Your task to perform on an android device: Open battery settings Image 0: 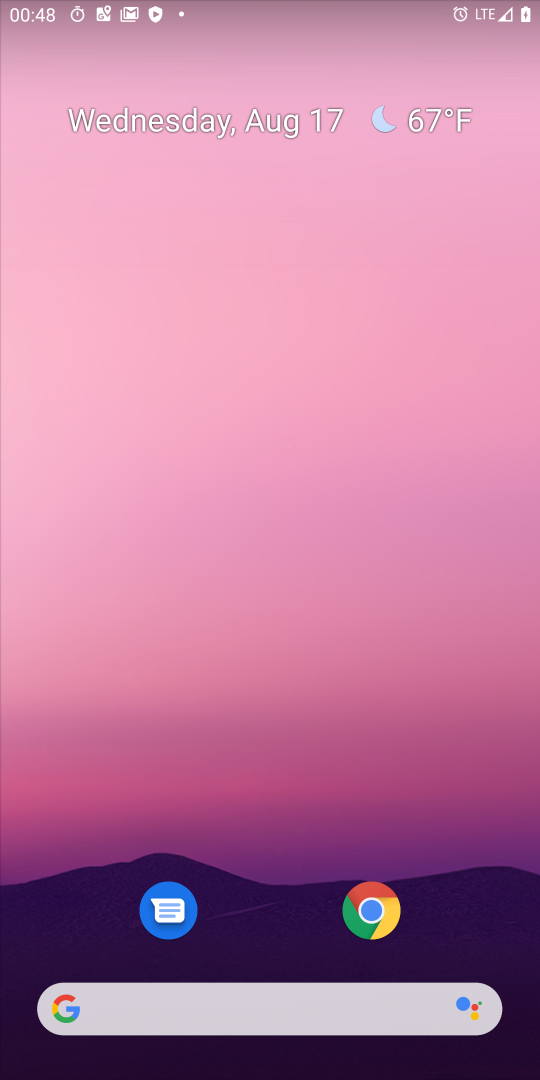
Step 0: drag from (270, 934) to (276, 92)
Your task to perform on an android device: Open battery settings Image 1: 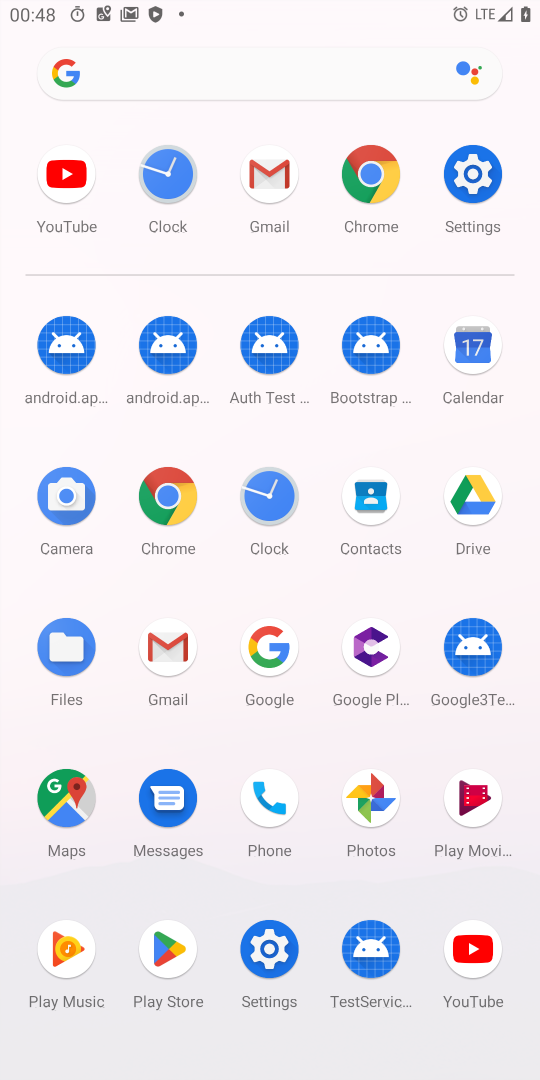
Step 1: click (253, 948)
Your task to perform on an android device: Open battery settings Image 2: 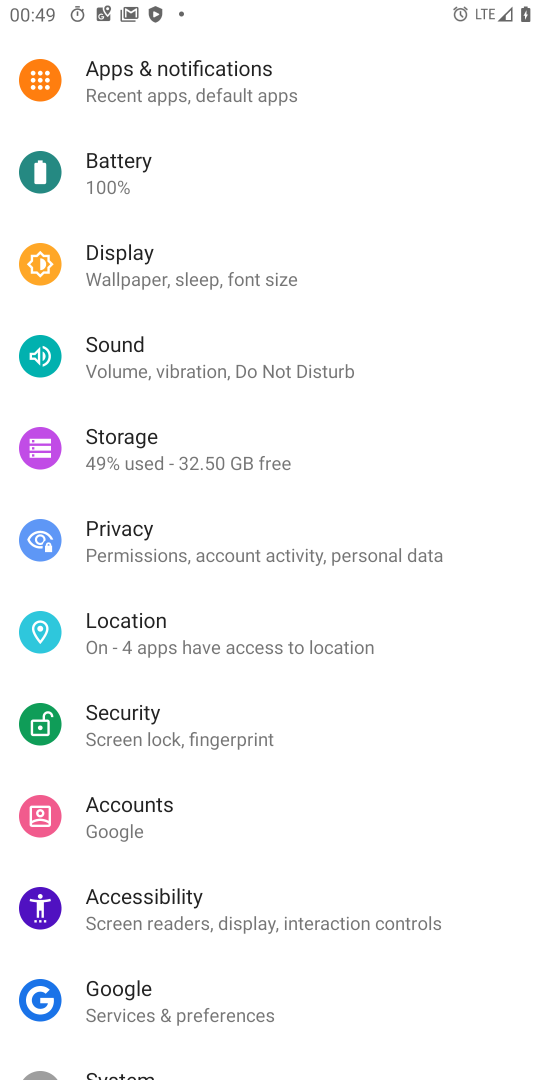
Step 2: click (169, 185)
Your task to perform on an android device: Open battery settings Image 3: 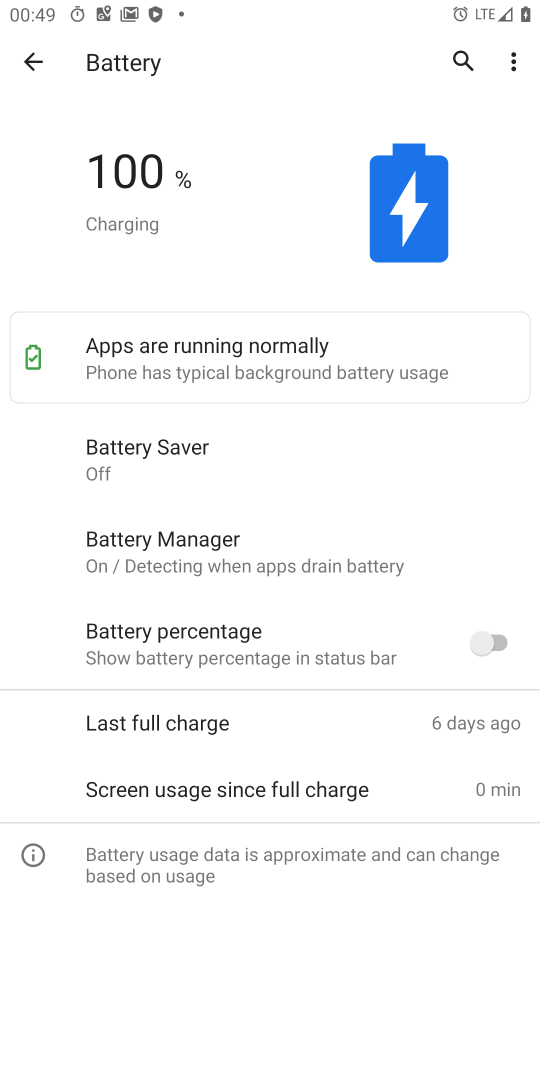
Step 3: task complete